Your task to perform on an android device: turn off smart reply in the gmail app Image 0: 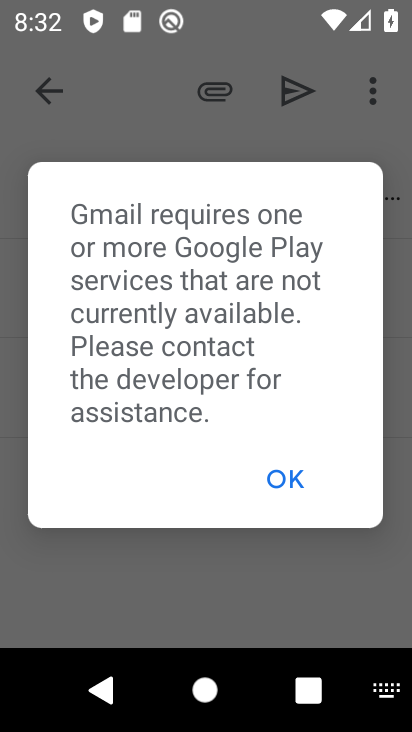
Step 0: click (289, 490)
Your task to perform on an android device: turn off smart reply in the gmail app Image 1: 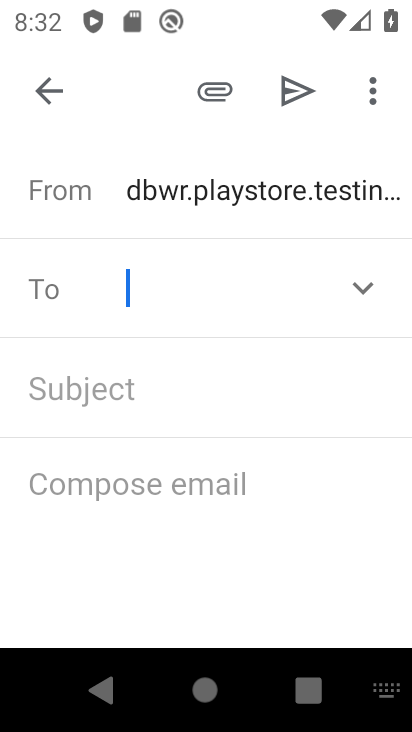
Step 1: click (38, 96)
Your task to perform on an android device: turn off smart reply in the gmail app Image 2: 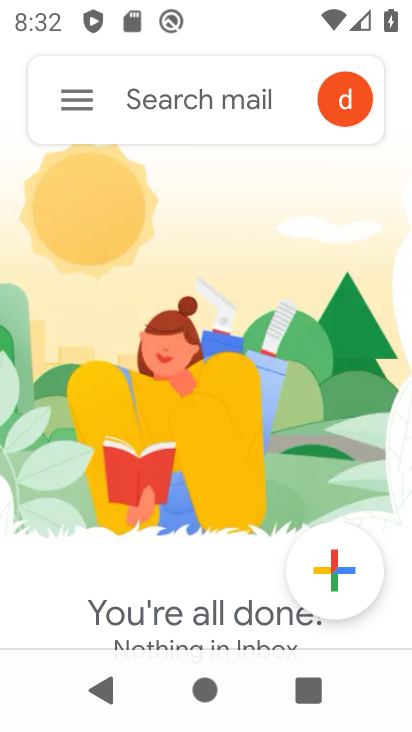
Step 2: click (69, 102)
Your task to perform on an android device: turn off smart reply in the gmail app Image 3: 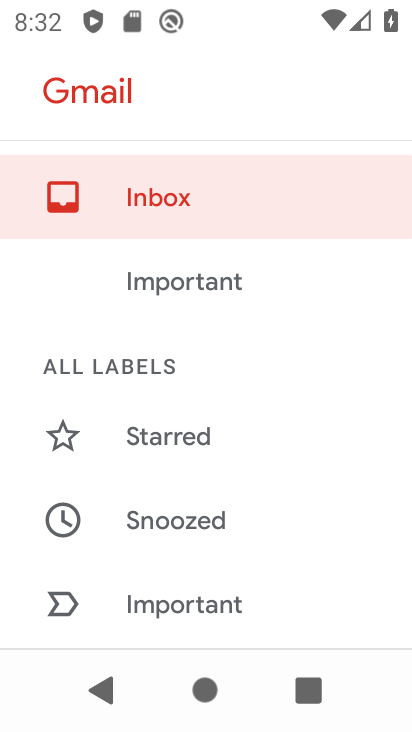
Step 3: drag from (200, 506) to (212, 130)
Your task to perform on an android device: turn off smart reply in the gmail app Image 4: 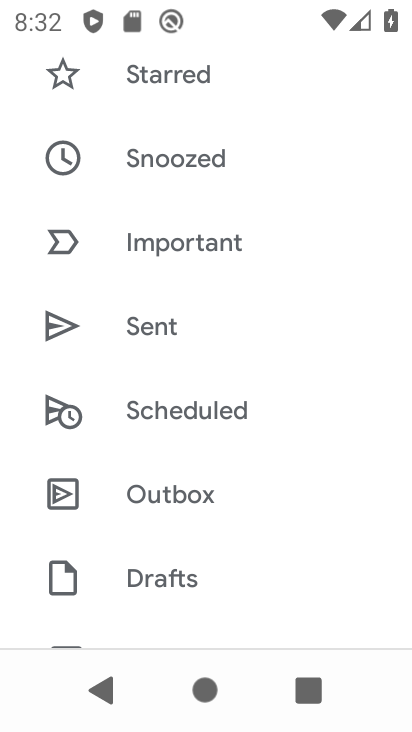
Step 4: drag from (222, 539) to (272, 261)
Your task to perform on an android device: turn off smart reply in the gmail app Image 5: 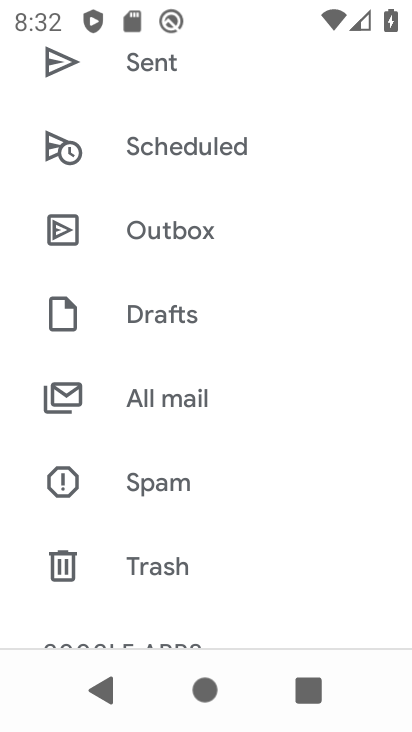
Step 5: drag from (242, 535) to (253, 287)
Your task to perform on an android device: turn off smart reply in the gmail app Image 6: 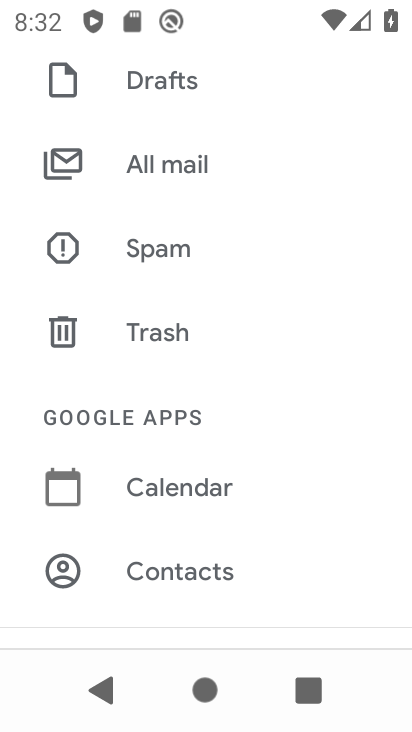
Step 6: drag from (255, 513) to (261, 289)
Your task to perform on an android device: turn off smart reply in the gmail app Image 7: 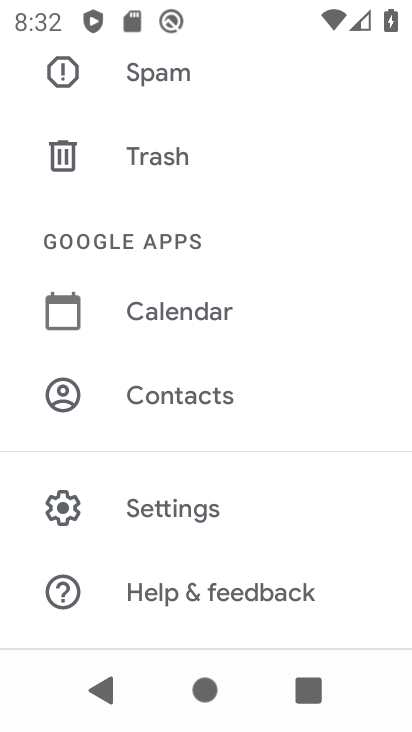
Step 7: click (178, 510)
Your task to perform on an android device: turn off smart reply in the gmail app Image 8: 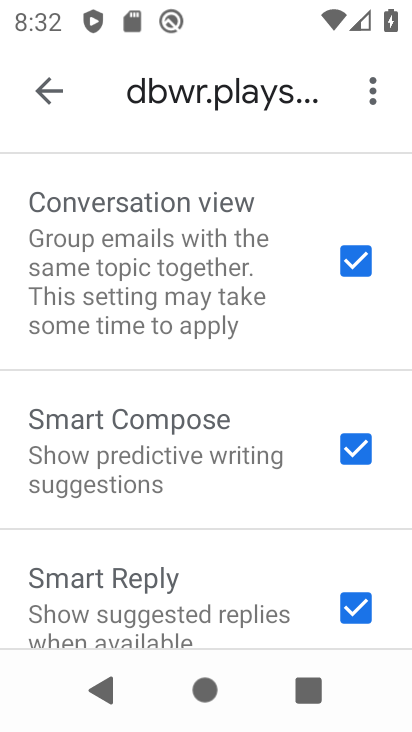
Step 8: click (368, 606)
Your task to perform on an android device: turn off smart reply in the gmail app Image 9: 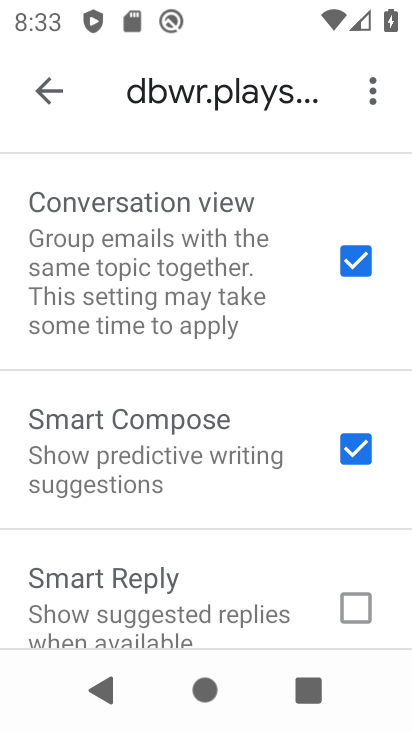
Step 9: task complete